Your task to perform on an android device: See recent photos Image 0: 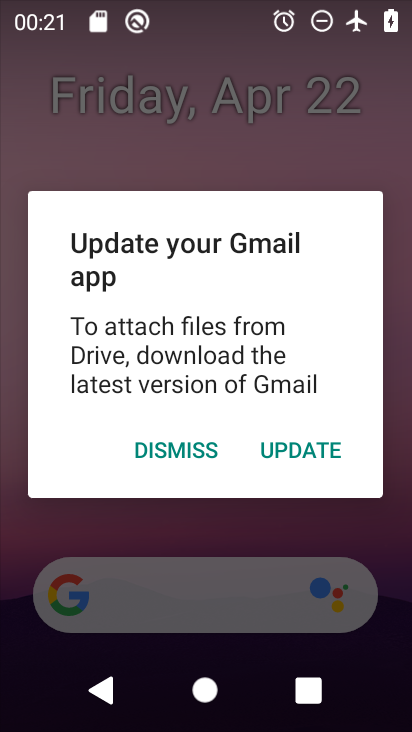
Step 0: press home button
Your task to perform on an android device: See recent photos Image 1: 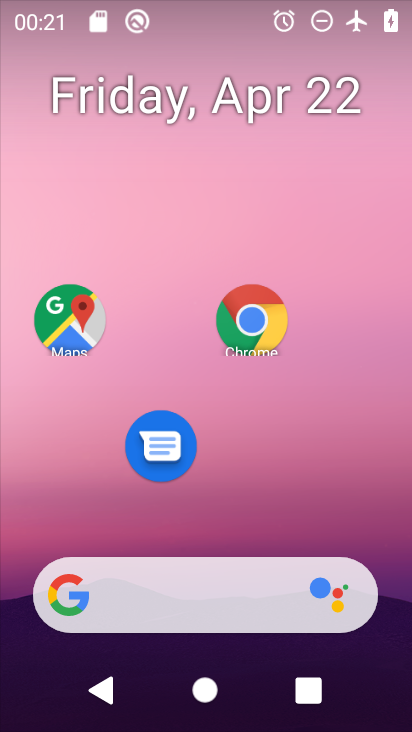
Step 1: drag from (206, 523) to (219, 61)
Your task to perform on an android device: See recent photos Image 2: 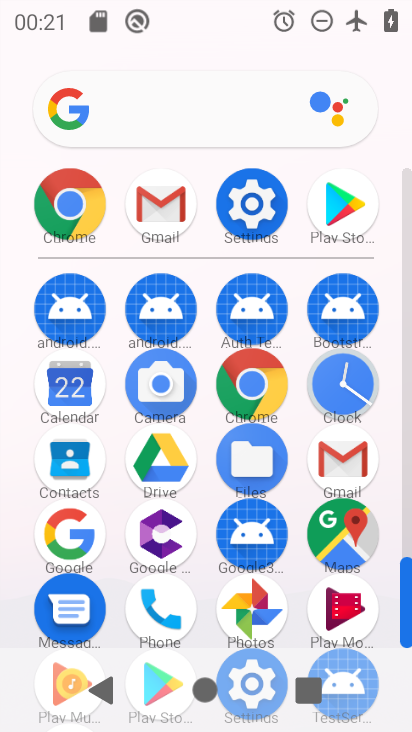
Step 2: click (256, 614)
Your task to perform on an android device: See recent photos Image 3: 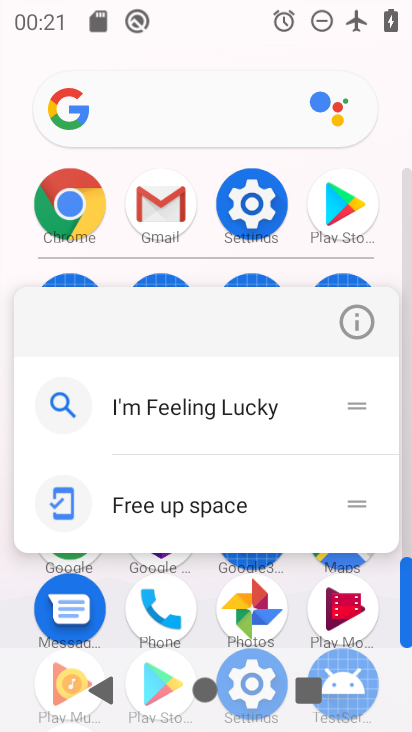
Step 3: click (364, 333)
Your task to perform on an android device: See recent photos Image 4: 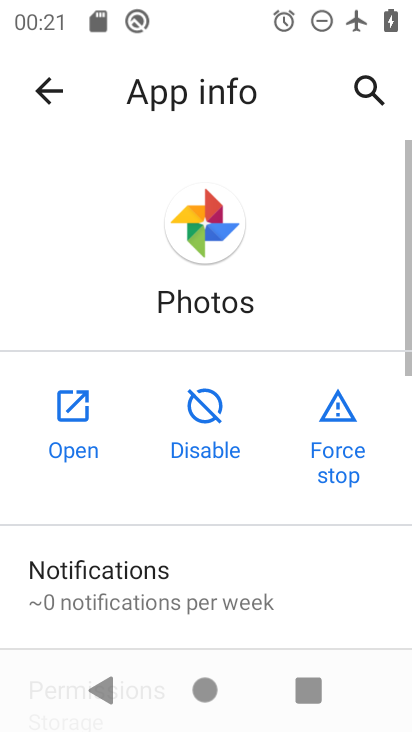
Step 4: click (67, 420)
Your task to perform on an android device: See recent photos Image 5: 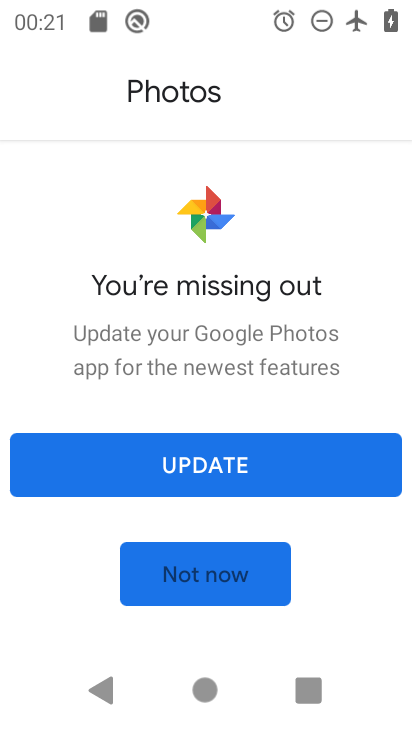
Step 5: click (217, 568)
Your task to perform on an android device: See recent photos Image 6: 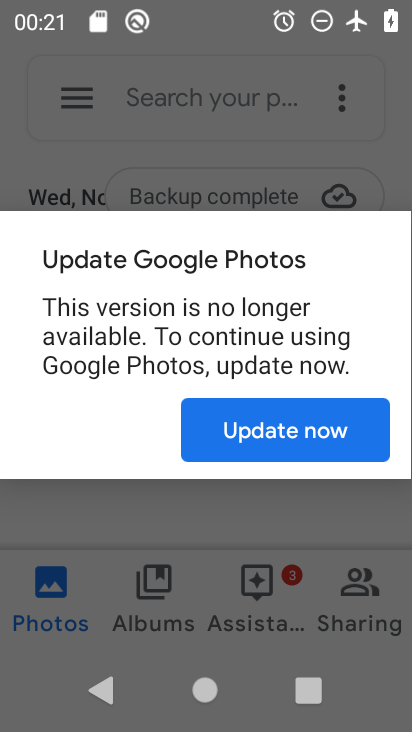
Step 6: click (304, 450)
Your task to perform on an android device: See recent photos Image 7: 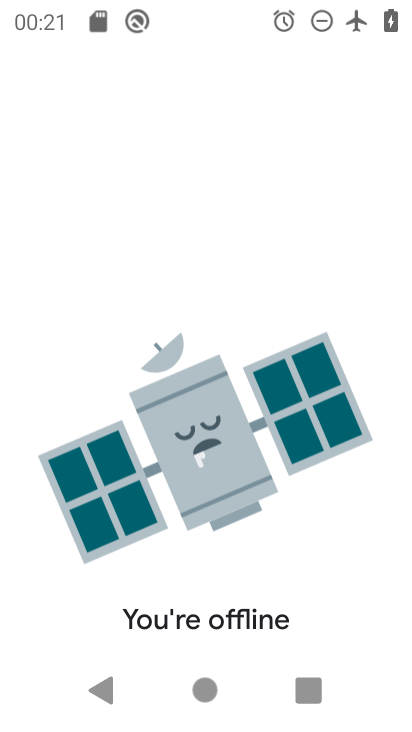
Step 7: click (297, 340)
Your task to perform on an android device: See recent photos Image 8: 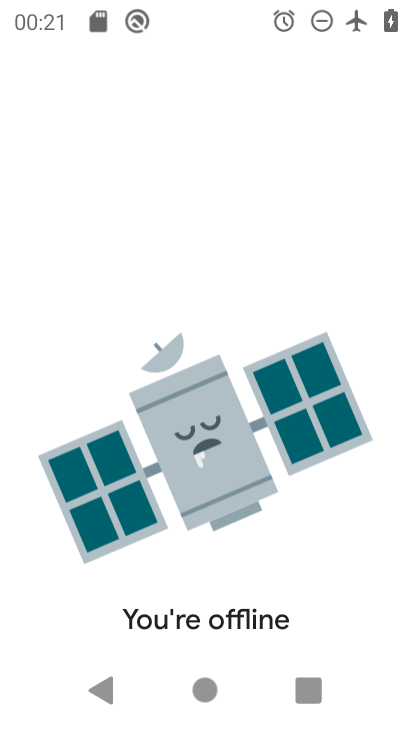
Step 8: click (299, 470)
Your task to perform on an android device: See recent photos Image 9: 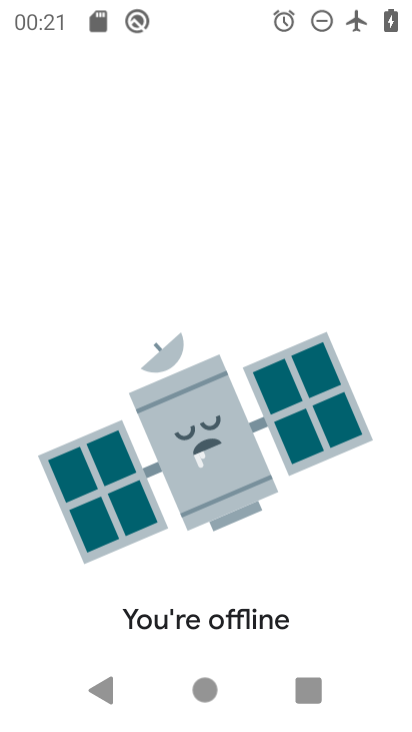
Step 9: click (295, 427)
Your task to perform on an android device: See recent photos Image 10: 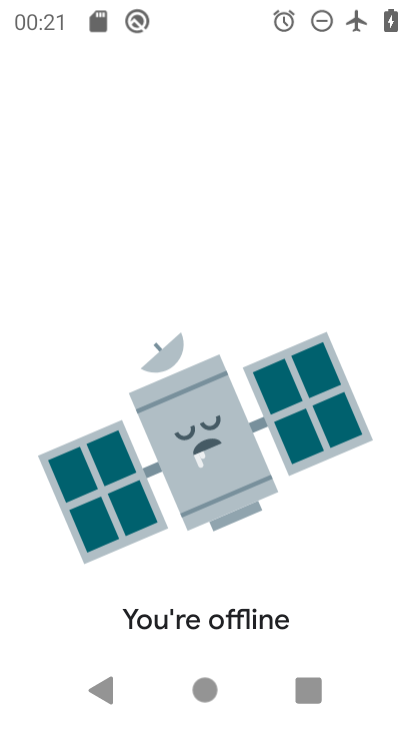
Step 10: click (341, 412)
Your task to perform on an android device: See recent photos Image 11: 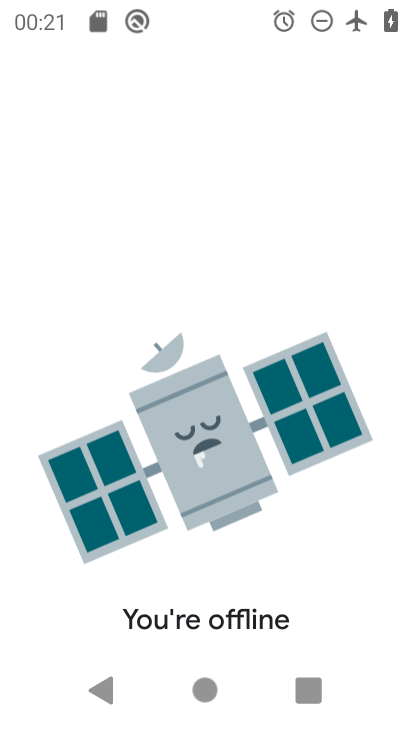
Step 11: click (312, 331)
Your task to perform on an android device: See recent photos Image 12: 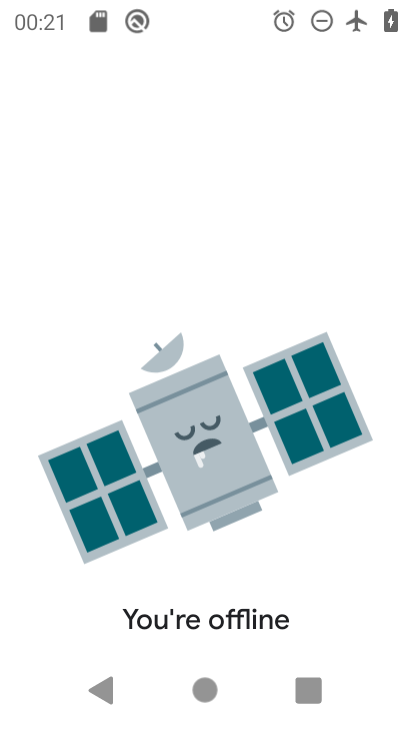
Step 12: click (315, 364)
Your task to perform on an android device: See recent photos Image 13: 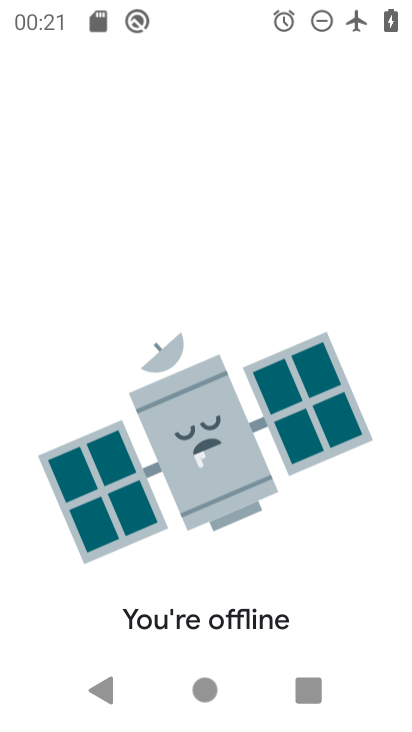
Step 13: task complete